Your task to perform on an android device: Go to internet settings Image 0: 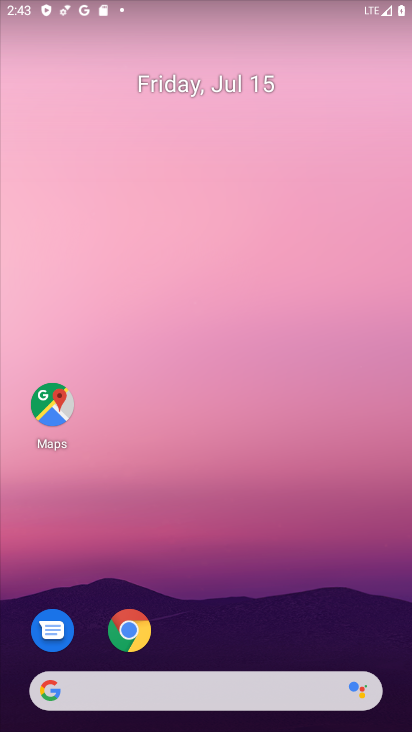
Step 0: drag from (227, 682) to (171, 168)
Your task to perform on an android device: Go to internet settings Image 1: 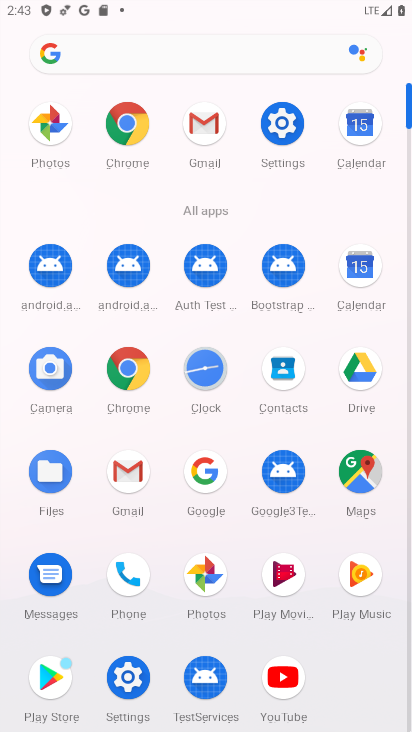
Step 1: click (285, 139)
Your task to perform on an android device: Go to internet settings Image 2: 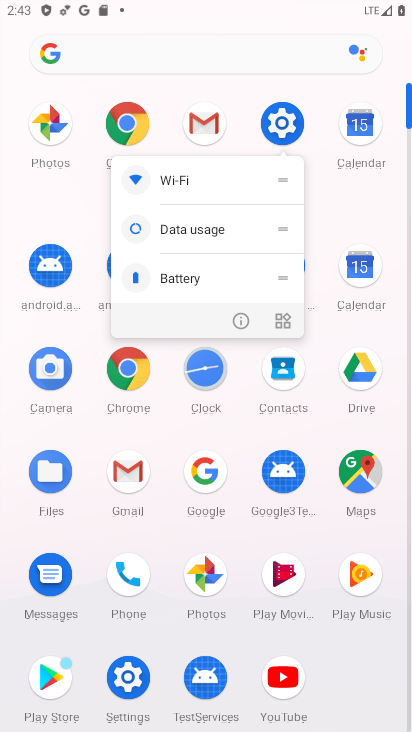
Step 2: click (270, 128)
Your task to perform on an android device: Go to internet settings Image 3: 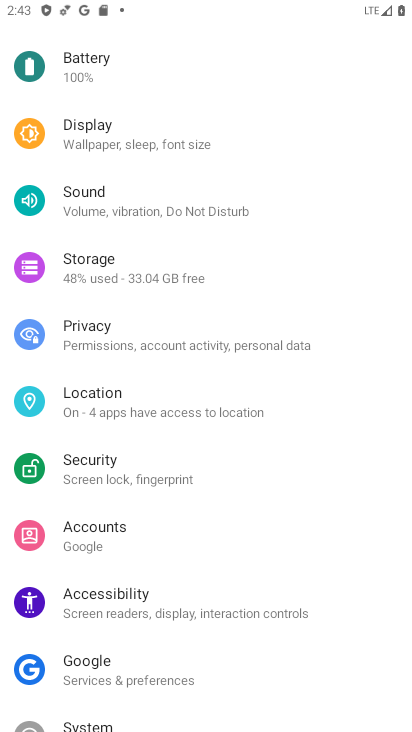
Step 3: drag from (149, 163) to (190, 643)
Your task to perform on an android device: Go to internet settings Image 4: 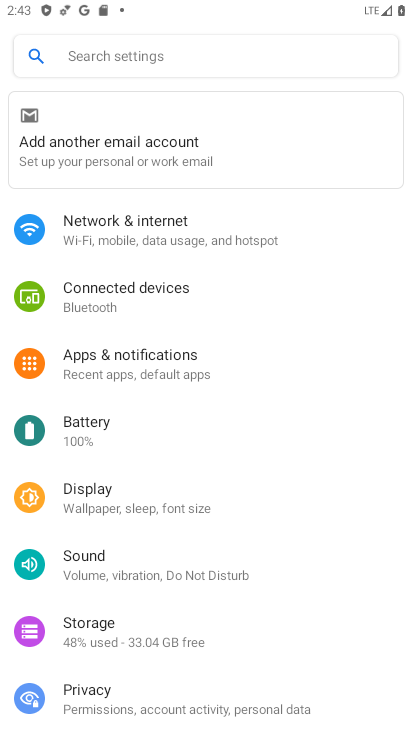
Step 4: click (128, 219)
Your task to perform on an android device: Go to internet settings Image 5: 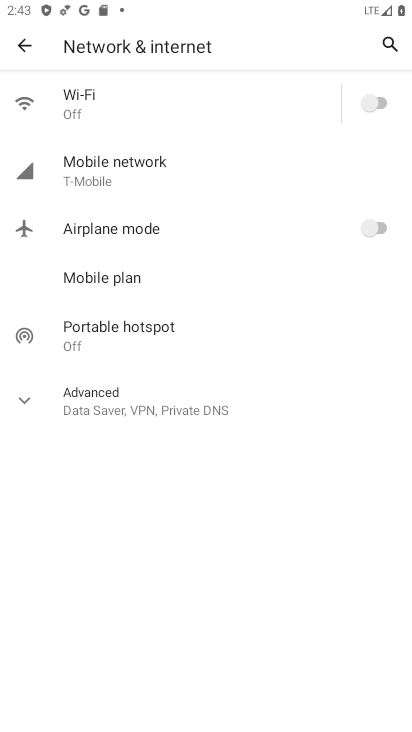
Step 5: task complete